Your task to perform on an android device: What's the weather going to be tomorrow? Image 0: 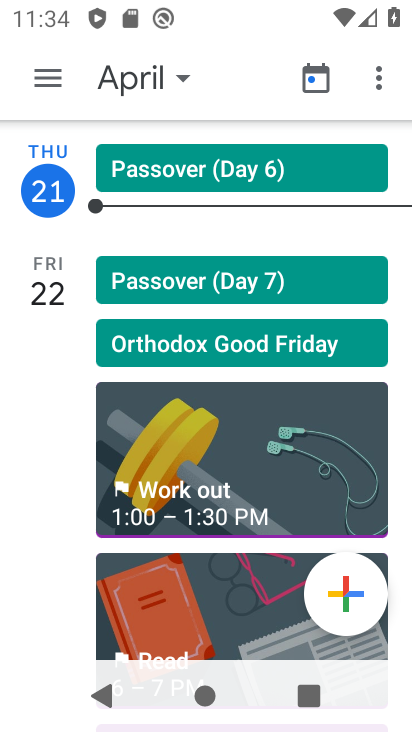
Step 0: press home button
Your task to perform on an android device: What's the weather going to be tomorrow? Image 1: 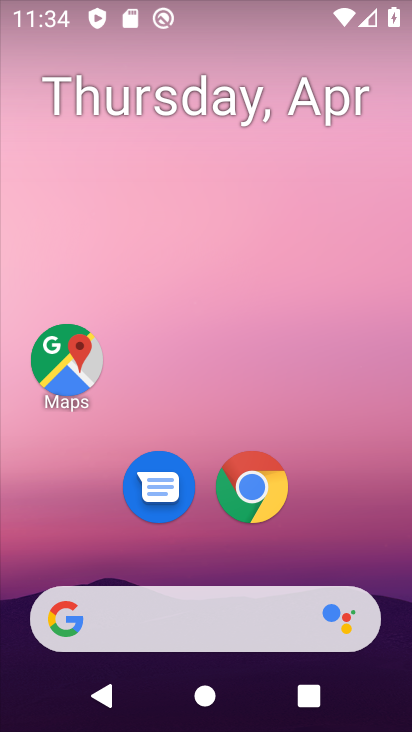
Step 1: drag from (224, 406) to (229, 236)
Your task to perform on an android device: What's the weather going to be tomorrow? Image 2: 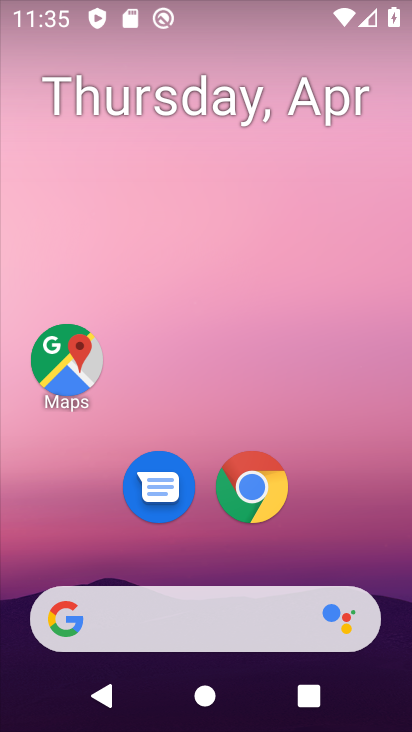
Step 2: click (254, 483)
Your task to perform on an android device: What's the weather going to be tomorrow? Image 3: 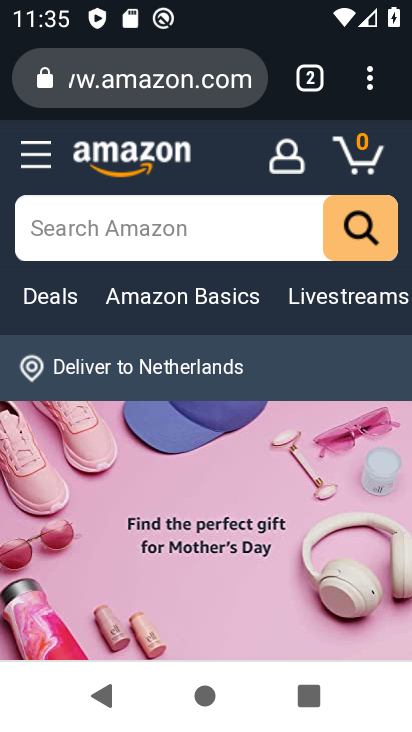
Step 3: click (351, 67)
Your task to perform on an android device: What's the weather going to be tomorrow? Image 4: 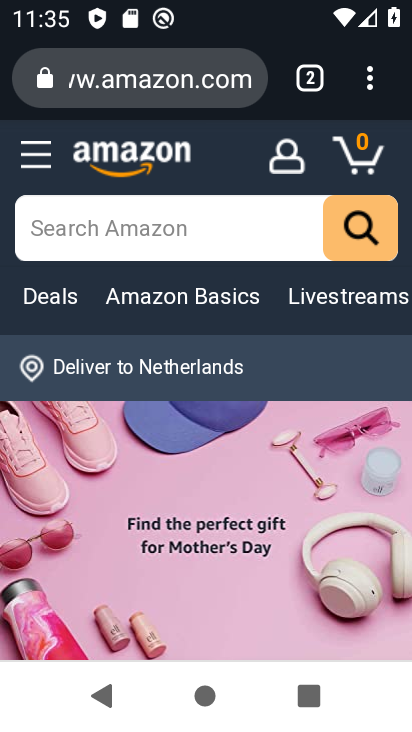
Step 4: click (349, 67)
Your task to perform on an android device: What's the weather going to be tomorrow? Image 5: 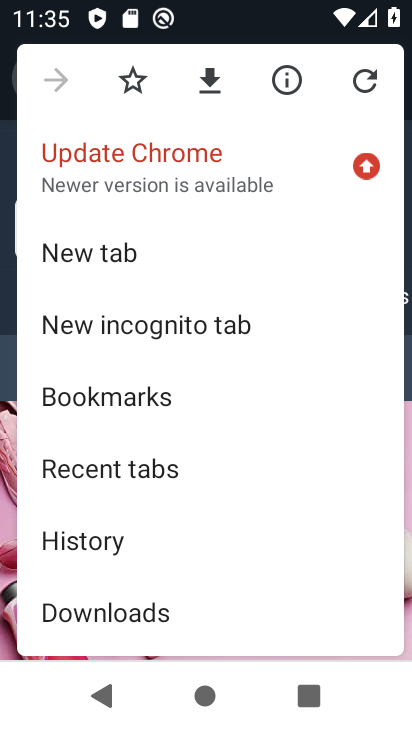
Step 5: click (154, 252)
Your task to perform on an android device: What's the weather going to be tomorrow? Image 6: 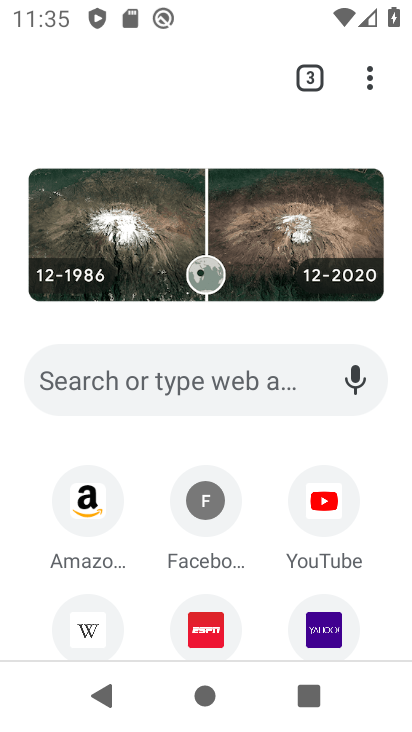
Step 6: click (189, 384)
Your task to perform on an android device: What's the weather going to be tomorrow? Image 7: 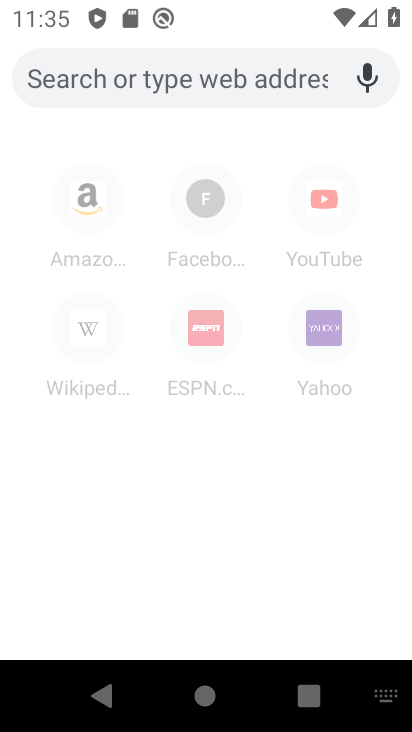
Step 7: type " weather going to be tomorrow?"
Your task to perform on an android device: What's the weather going to be tomorrow? Image 8: 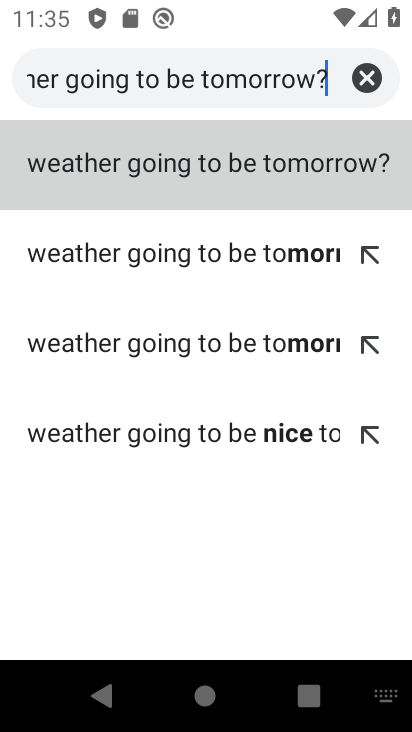
Step 8: click (207, 246)
Your task to perform on an android device: What's the weather going to be tomorrow? Image 9: 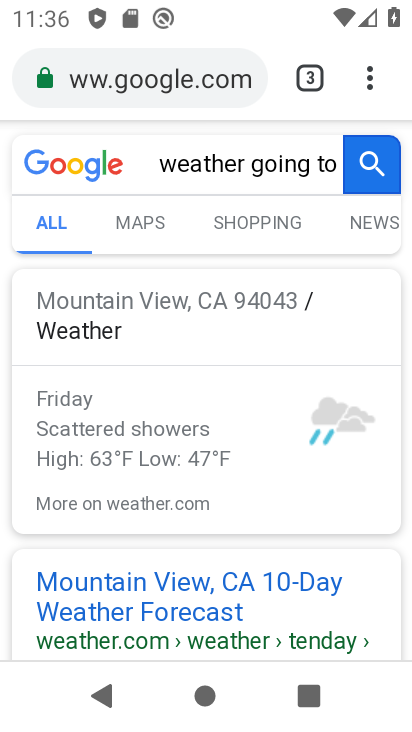
Step 9: task complete